Your task to perform on an android device: allow notifications from all sites in the chrome app Image 0: 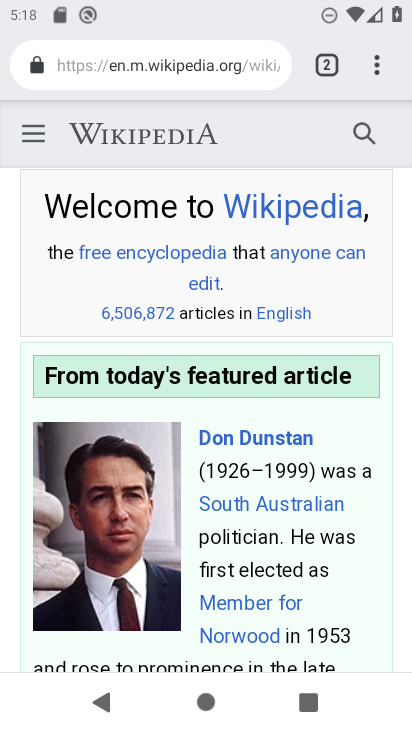
Step 0: click (387, 58)
Your task to perform on an android device: allow notifications from all sites in the chrome app Image 1: 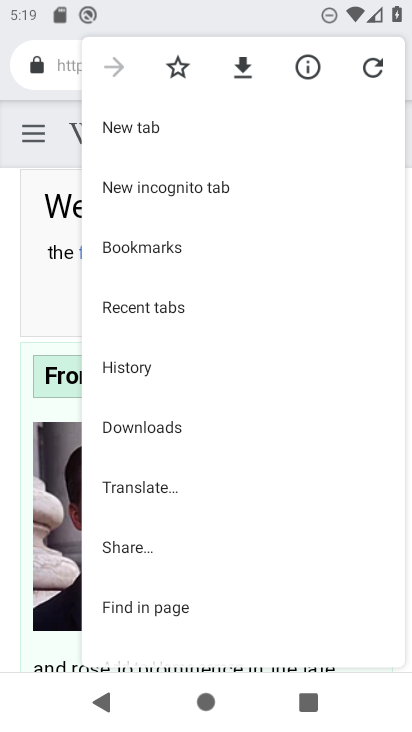
Step 1: drag from (204, 564) to (238, 217)
Your task to perform on an android device: allow notifications from all sites in the chrome app Image 2: 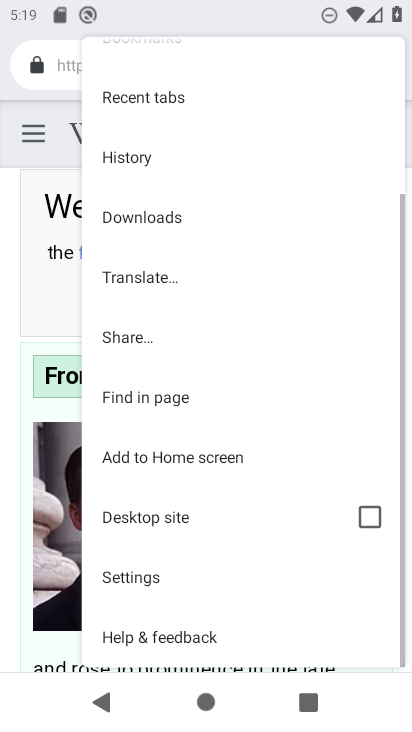
Step 2: drag from (214, 373) to (180, 115)
Your task to perform on an android device: allow notifications from all sites in the chrome app Image 3: 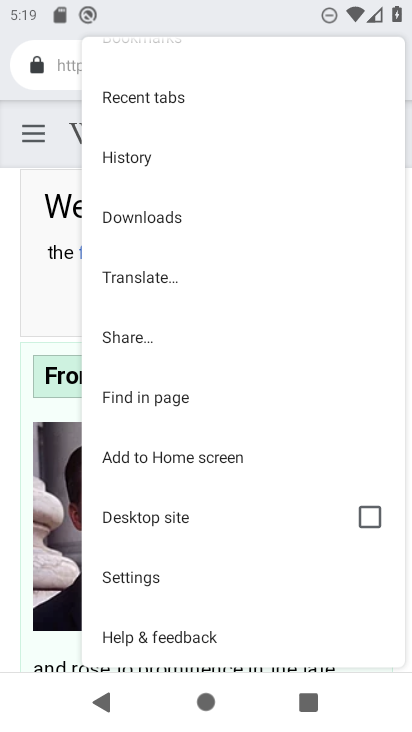
Step 3: click (133, 574)
Your task to perform on an android device: allow notifications from all sites in the chrome app Image 4: 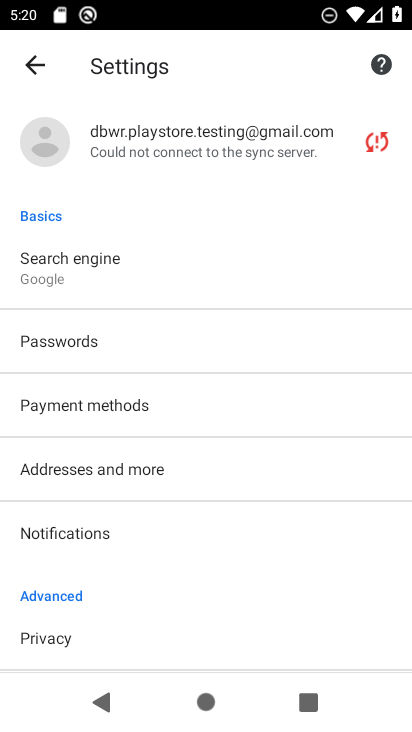
Step 4: drag from (123, 647) to (155, 203)
Your task to perform on an android device: allow notifications from all sites in the chrome app Image 5: 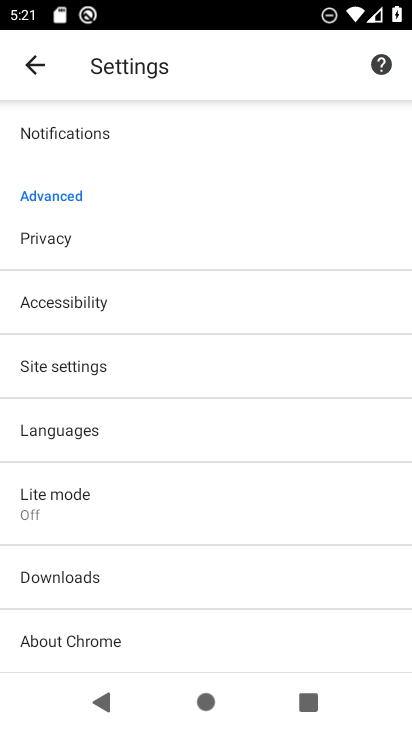
Step 5: drag from (115, 537) to (145, 157)
Your task to perform on an android device: allow notifications from all sites in the chrome app Image 6: 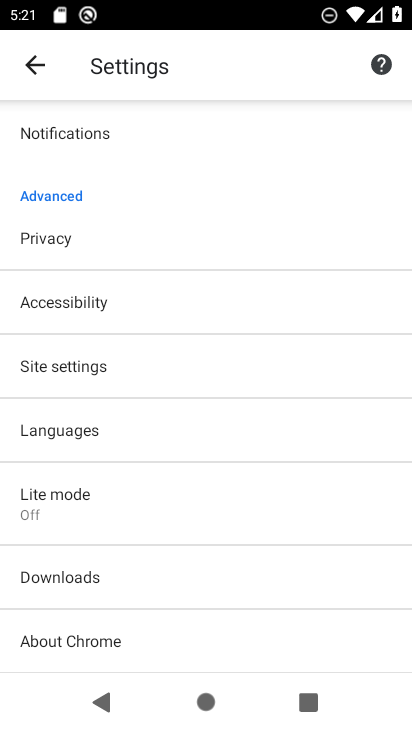
Step 6: click (95, 125)
Your task to perform on an android device: allow notifications from all sites in the chrome app Image 7: 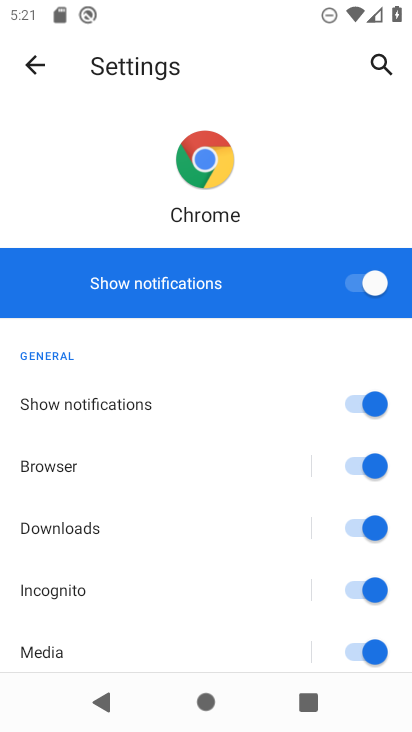
Step 7: task complete